Your task to perform on an android device: open device folders in google photos Image 0: 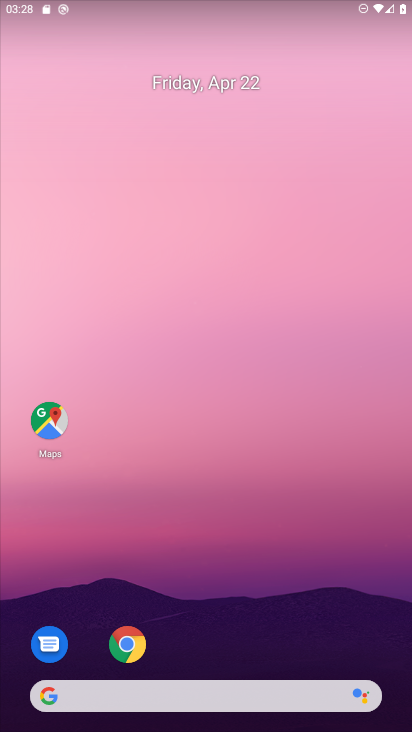
Step 0: drag from (235, 559) to (208, 158)
Your task to perform on an android device: open device folders in google photos Image 1: 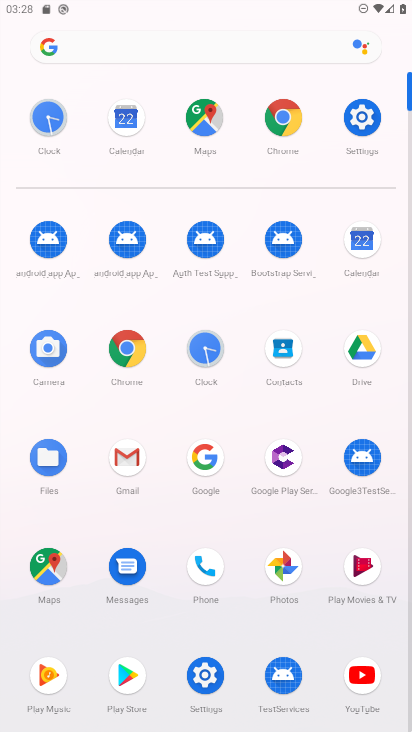
Step 1: click (284, 561)
Your task to perform on an android device: open device folders in google photos Image 2: 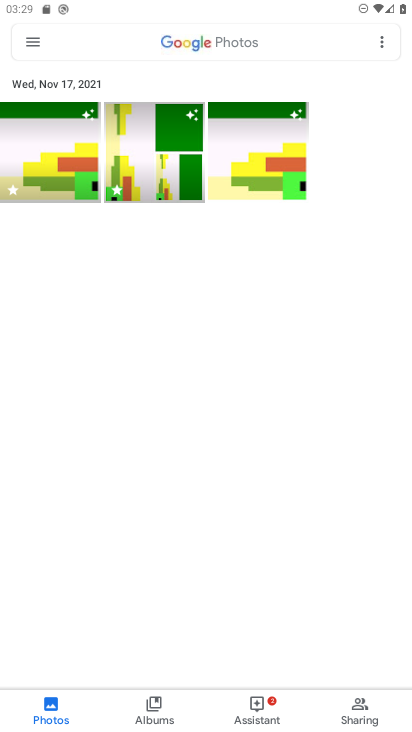
Step 2: click (30, 41)
Your task to perform on an android device: open device folders in google photos Image 3: 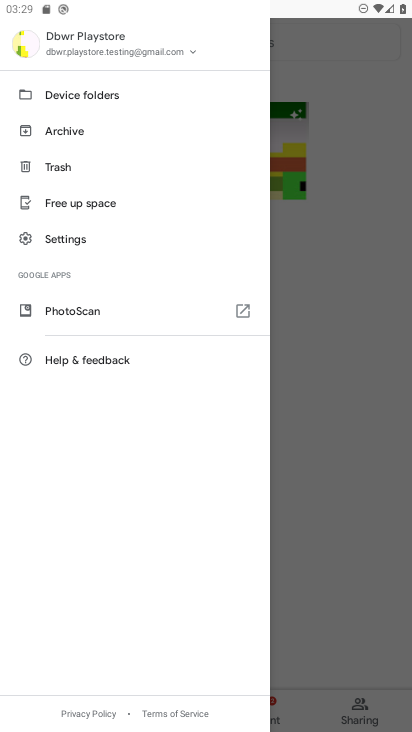
Step 3: click (85, 96)
Your task to perform on an android device: open device folders in google photos Image 4: 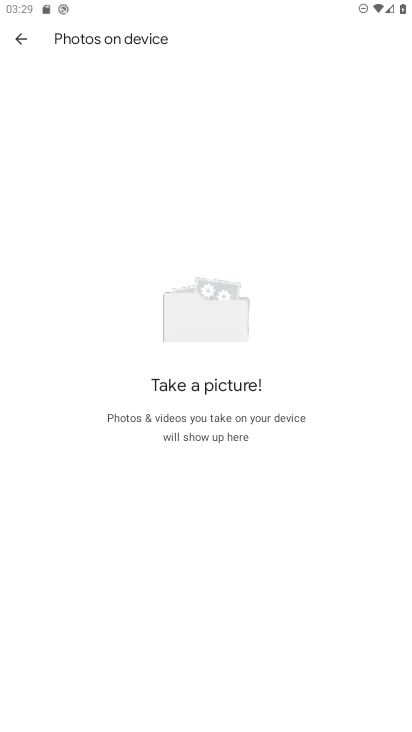
Step 4: task complete